Your task to perform on an android device: Go to Yahoo.com Image 0: 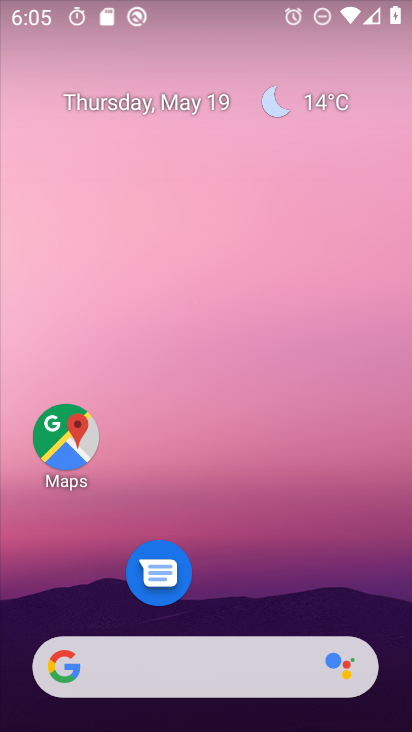
Step 0: drag from (242, 599) to (229, 142)
Your task to perform on an android device: Go to Yahoo.com Image 1: 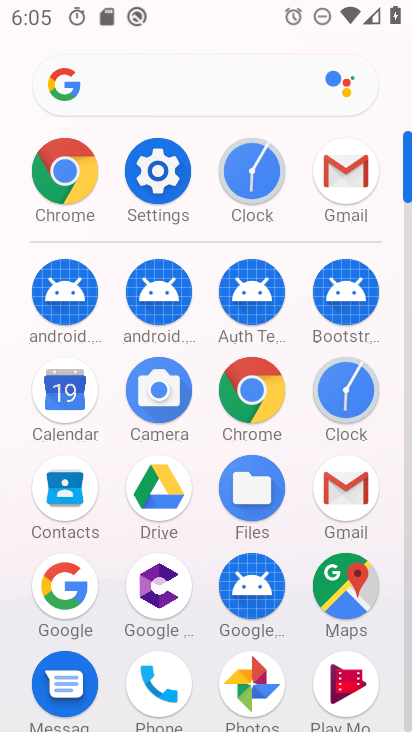
Step 1: click (57, 210)
Your task to perform on an android device: Go to Yahoo.com Image 2: 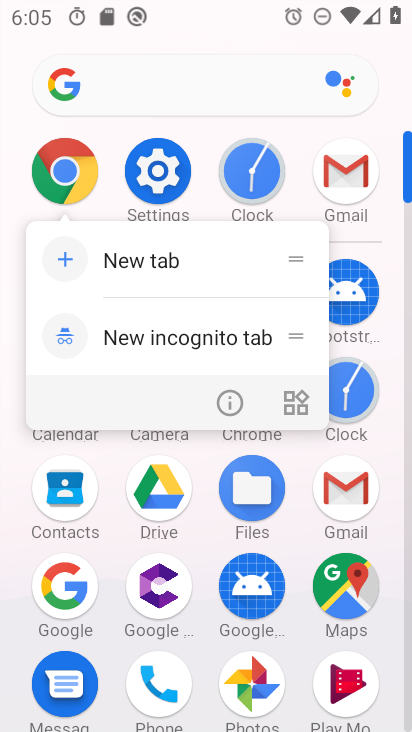
Step 2: click (60, 184)
Your task to perform on an android device: Go to Yahoo.com Image 3: 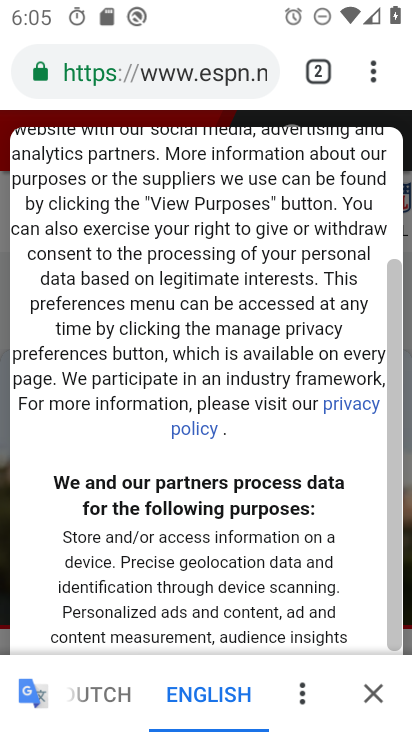
Step 3: click (232, 61)
Your task to perform on an android device: Go to Yahoo.com Image 4: 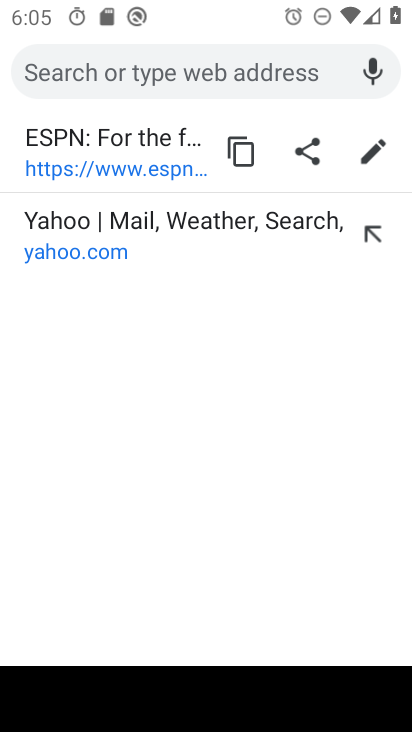
Step 4: type "www.yahoo.com"
Your task to perform on an android device: Go to Yahoo.com Image 5: 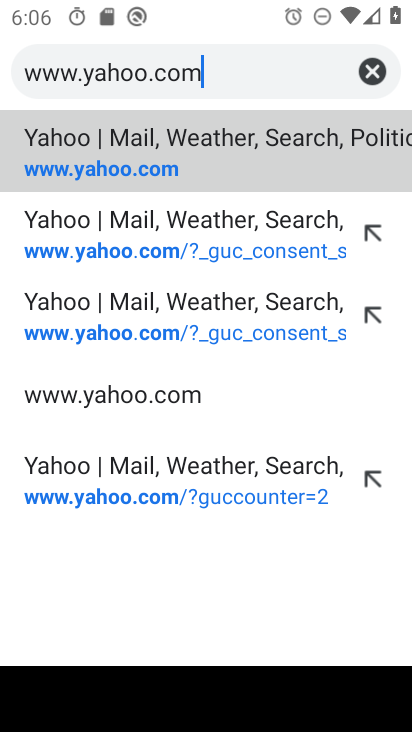
Step 5: click (111, 154)
Your task to perform on an android device: Go to Yahoo.com Image 6: 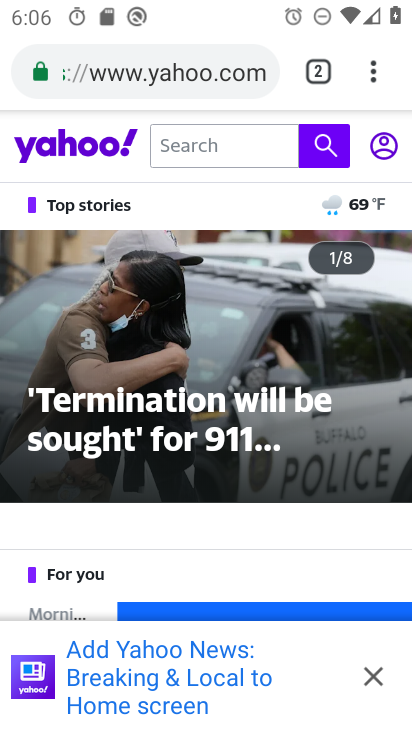
Step 6: task complete